Your task to perform on an android device: add a label to a message in the gmail app Image 0: 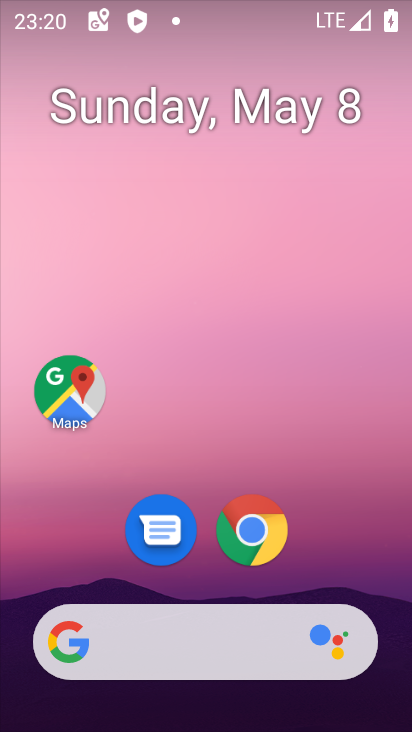
Step 0: drag from (393, 585) to (391, 136)
Your task to perform on an android device: add a label to a message in the gmail app Image 1: 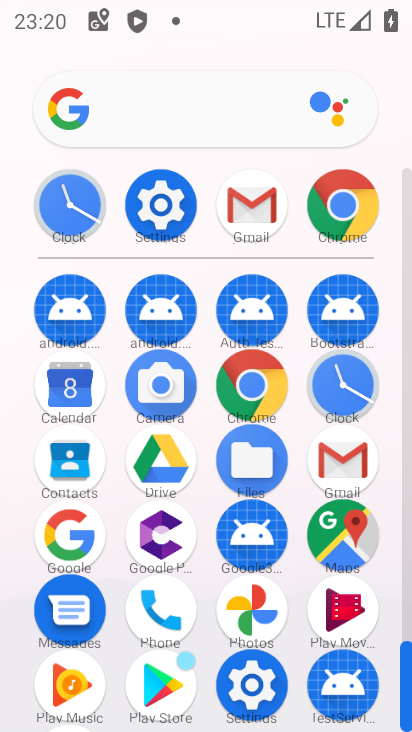
Step 1: click (337, 471)
Your task to perform on an android device: add a label to a message in the gmail app Image 2: 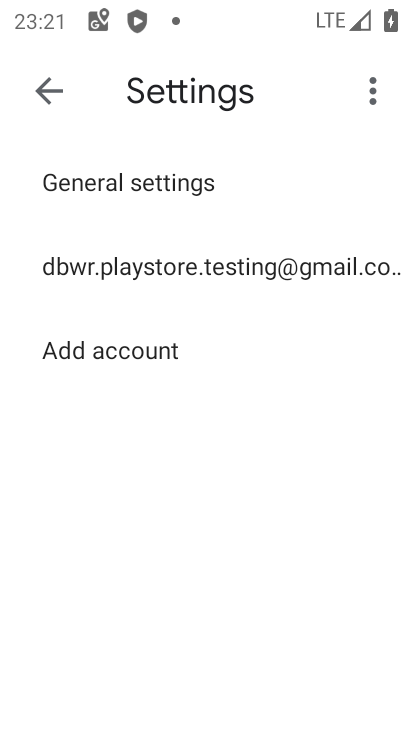
Step 2: click (32, 89)
Your task to perform on an android device: add a label to a message in the gmail app Image 3: 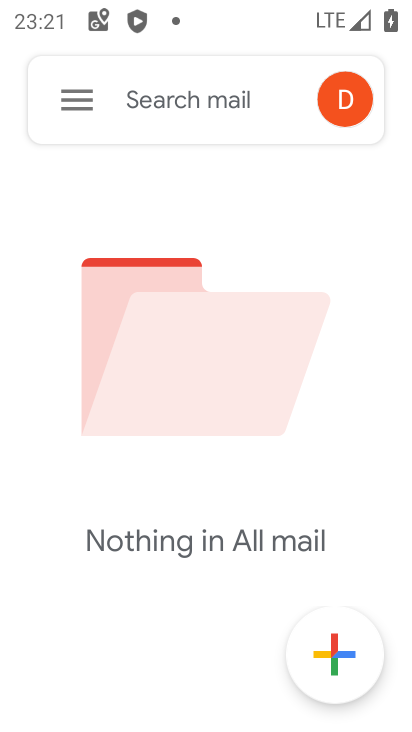
Step 3: click (77, 105)
Your task to perform on an android device: add a label to a message in the gmail app Image 4: 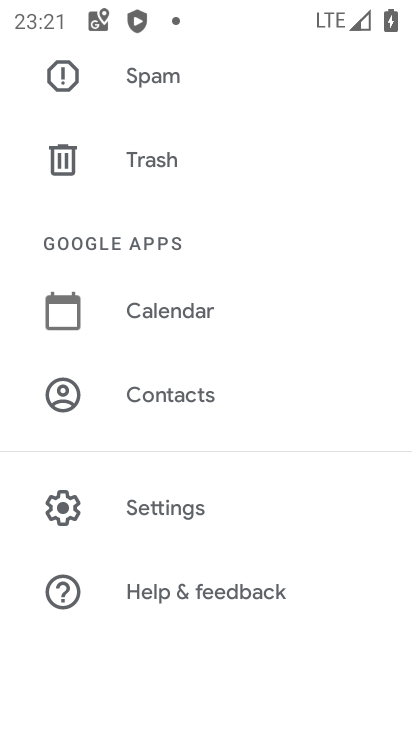
Step 4: drag from (206, 167) to (268, 504)
Your task to perform on an android device: add a label to a message in the gmail app Image 5: 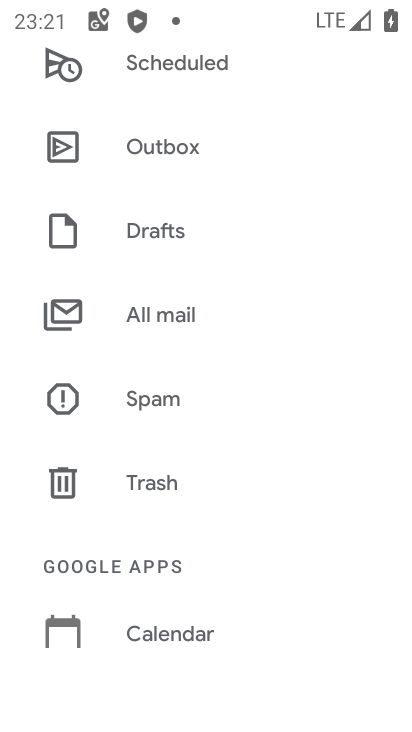
Step 5: click (200, 321)
Your task to perform on an android device: add a label to a message in the gmail app Image 6: 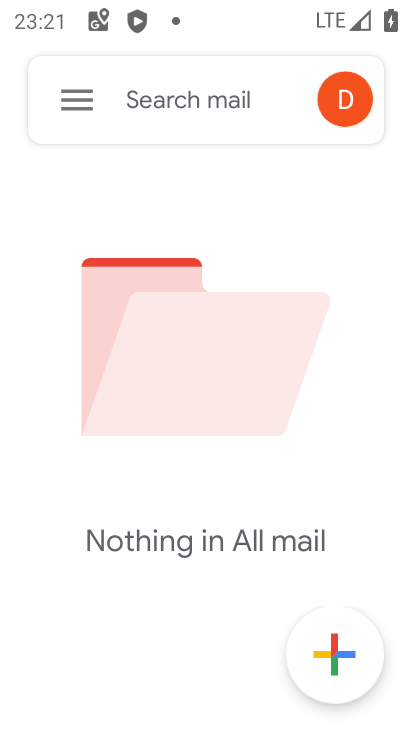
Step 6: task complete